Your task to perform on an android device: change notifications settings Image 0: 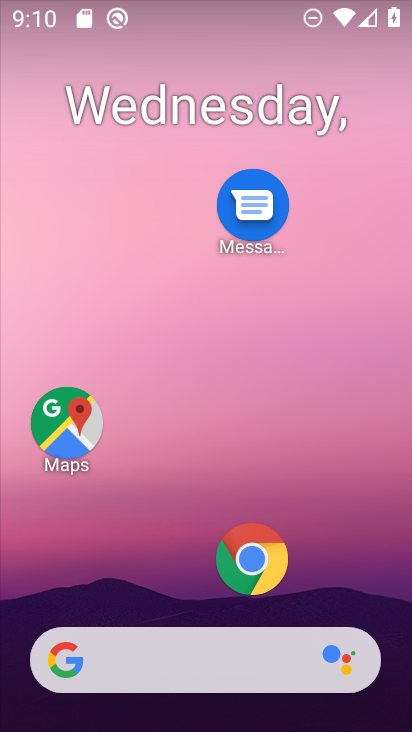
Step 0: drag from (169, 623) to (194, 189)
Your task to perform on an android device: change notifications settings Image 1: 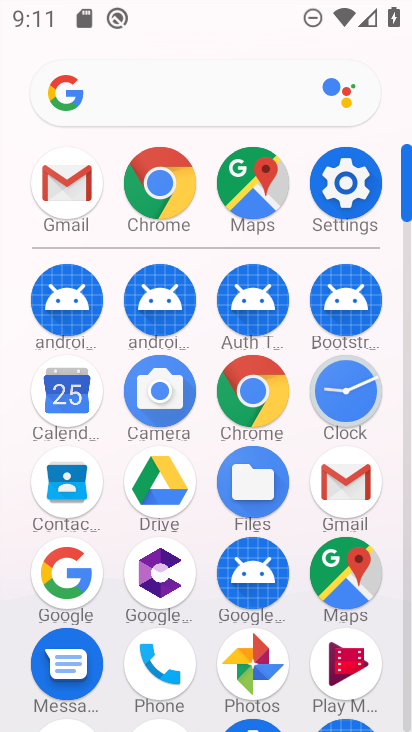
Step 1: click (357, 195)
Your task to perform on an android device: change notifications settings Image 2: 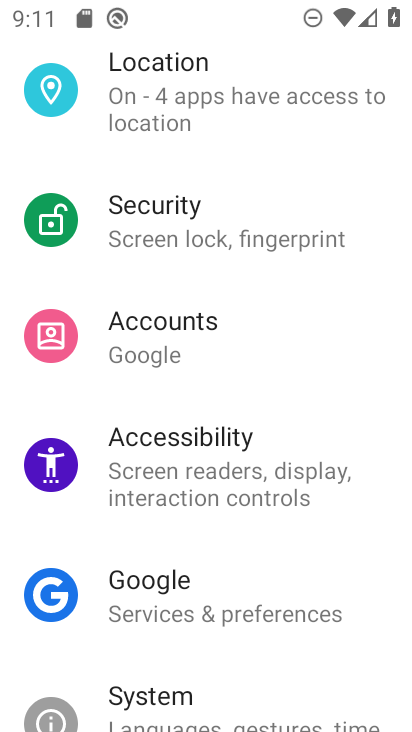
Step 2: drag from (204, 269) to (203, 608)
Your task to perform on an android device: change notifications settings Image 3: 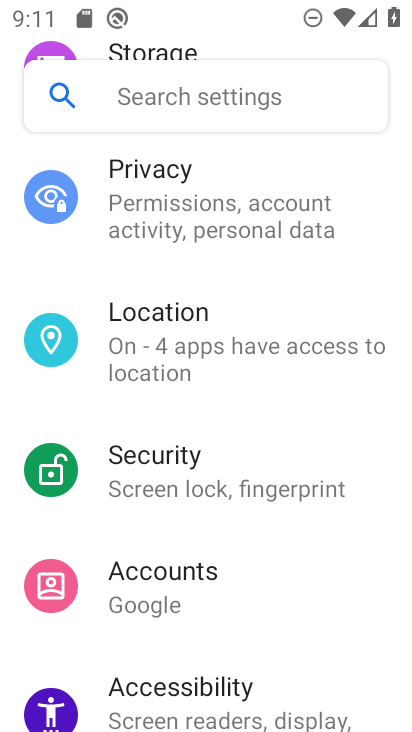
Step 3: drag from (231, 262) to (226, 653)
Your task to perform on an android device: change notifications settings Image 4: 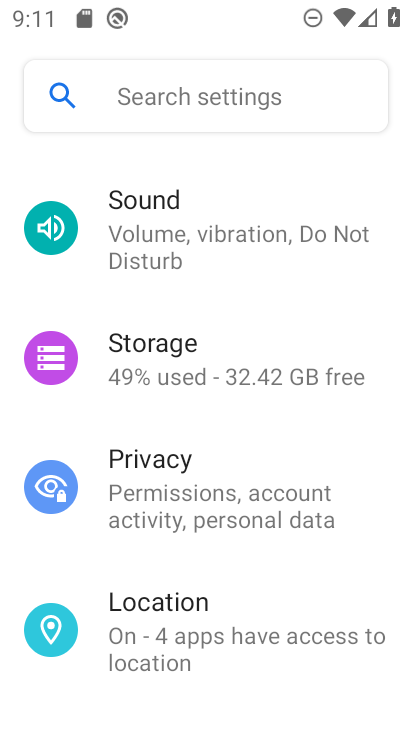
Step 4: drag from (209, 354) to (229, 719)
Your task to perform on an android device: change notifications settings Image 5: 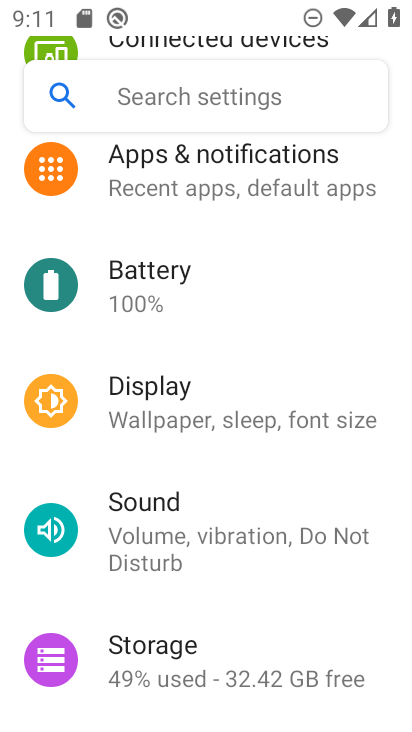
Step 5: drag from (241, 311) to (254, 519)
Your task to perform on an android device: change notifications settings Image 6: 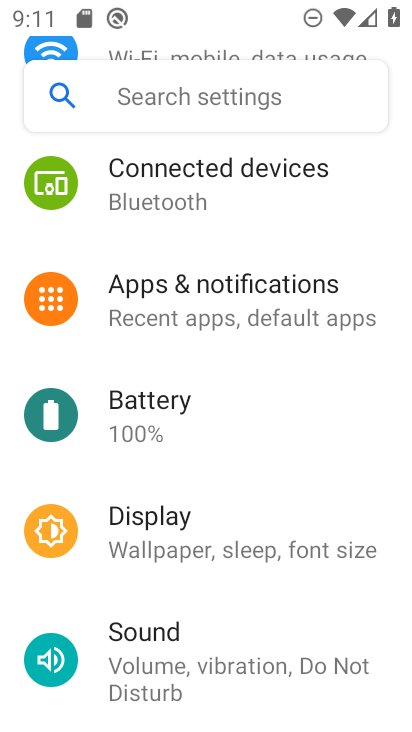
Step 6: click (267, 317)
Your task to perform on an android device: change notifications settings Image 7: 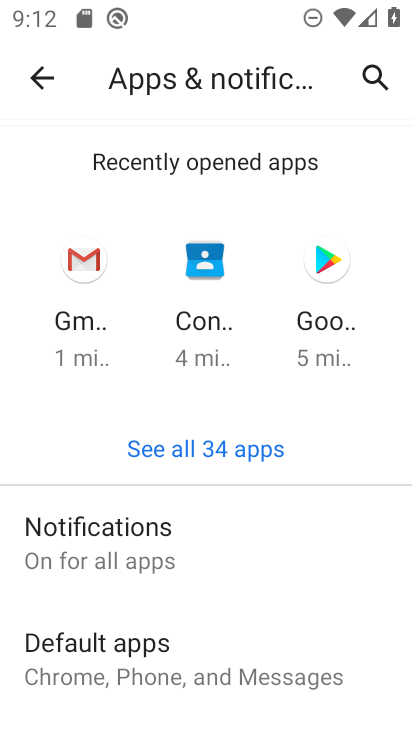
Step 7: click (196, 541)
Your task to perform on an android device: change notifications settings Image 8: 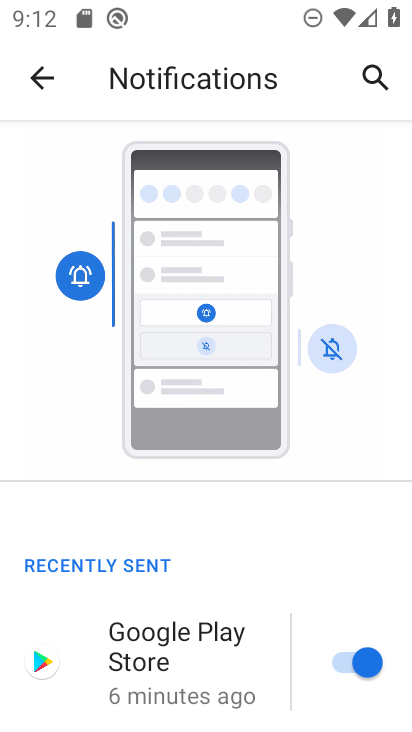
Step 8: click (343, 664)
Your task to perform on an android device: change notifications settings Image 9: 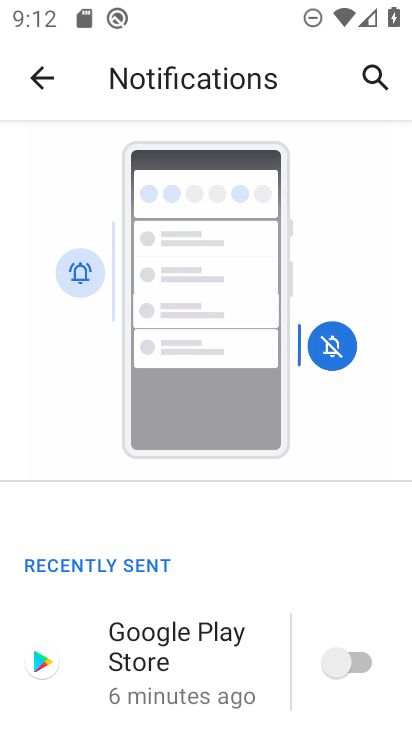
Step 9: task complete